Your task to perform on an android device: Find coffee shops on Maps Image 0: 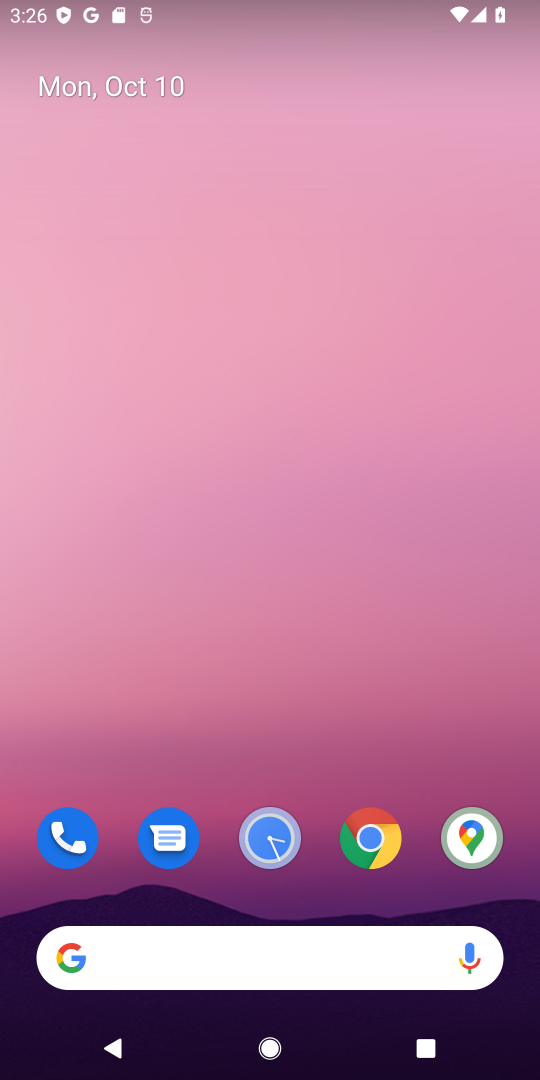
Step 0: drag from (259, 895) to (313, 175)
Your task to perform on an android device: Find coffee shops on Maps Image 1: 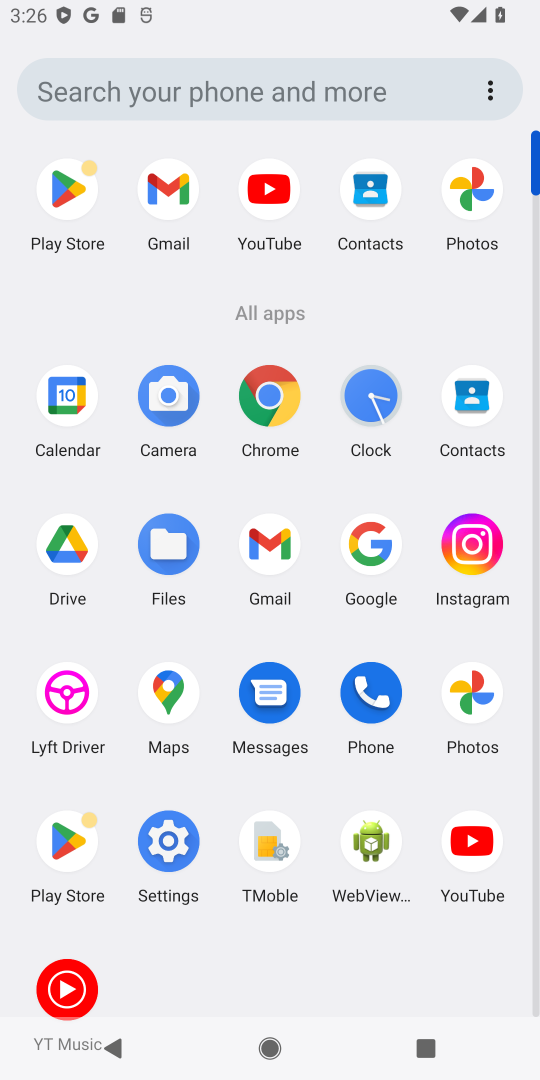
Step 1: click (175, 700)
Your task to perform on an android device: Find coffee shops on Maps Image 2: 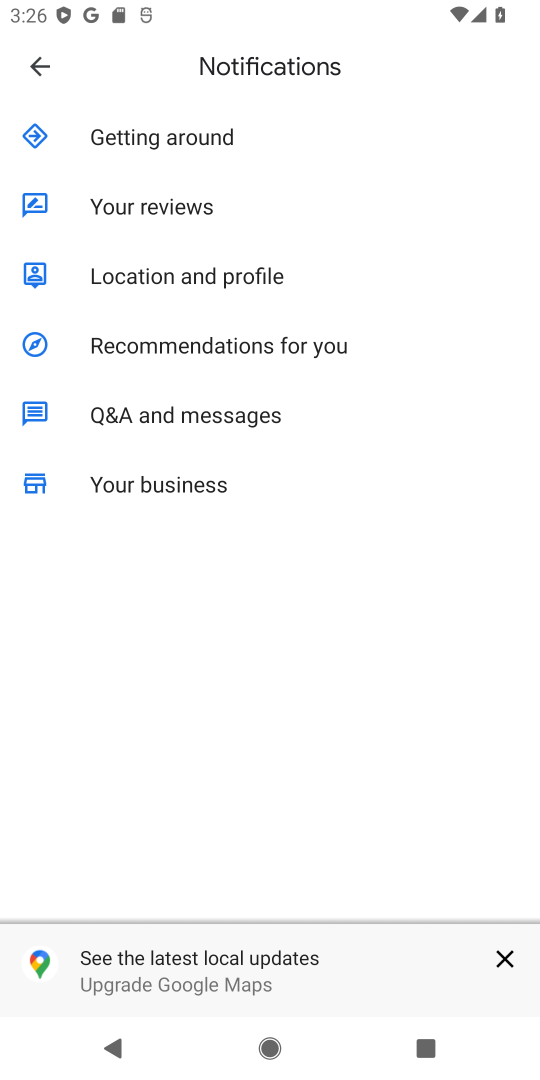
Step 2: click (36, 72)
Your task to perform on an android device: Find coffee shops on Maps Image 3: 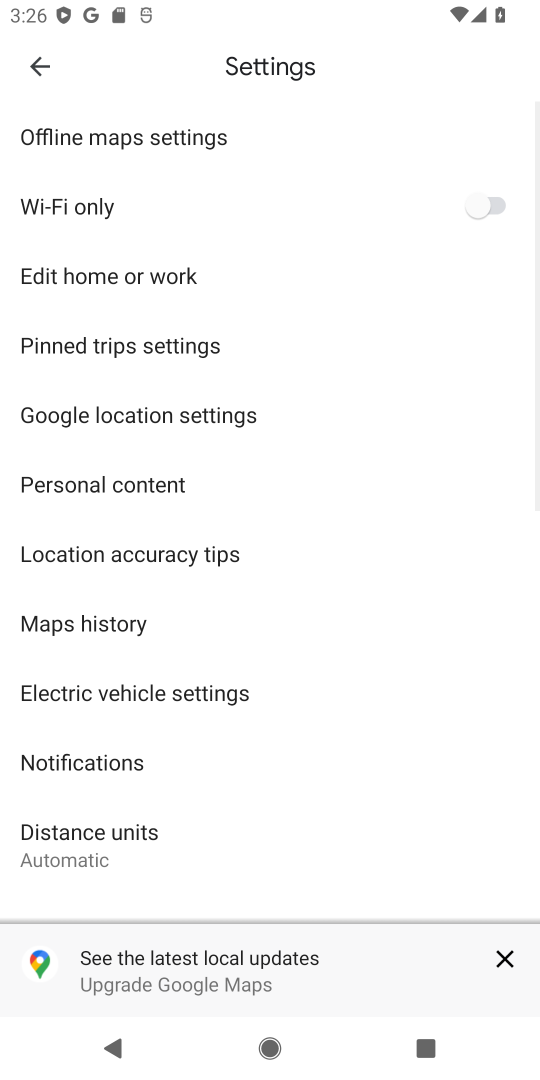
Step 3: click (31, 65)
Your task to perform on an android device: Find coffee shops on Maps Image 4: 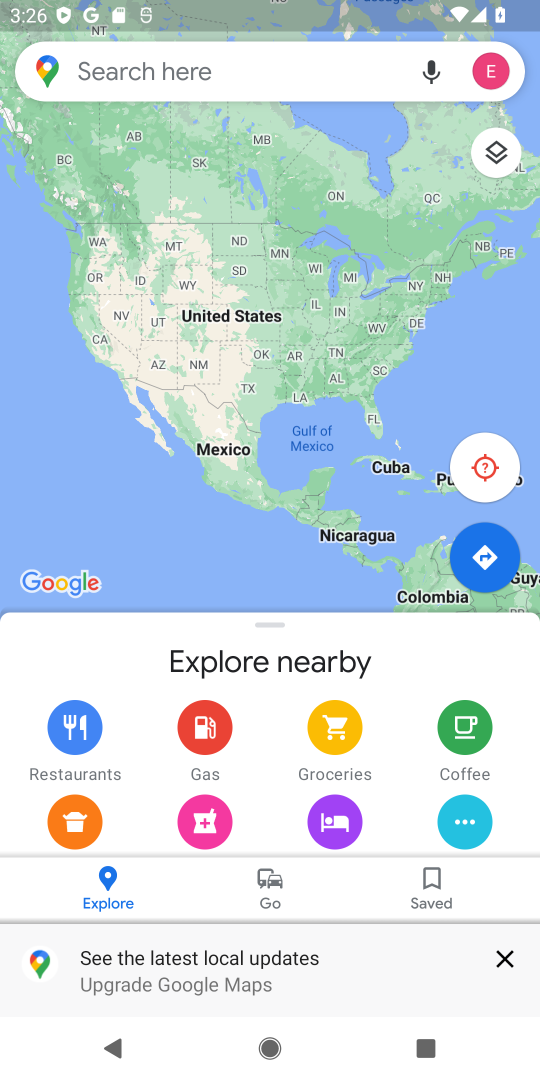
Step 4: click (242, 88)
Your task to perform on an android device: Find coffee shops on Maps Image 5: 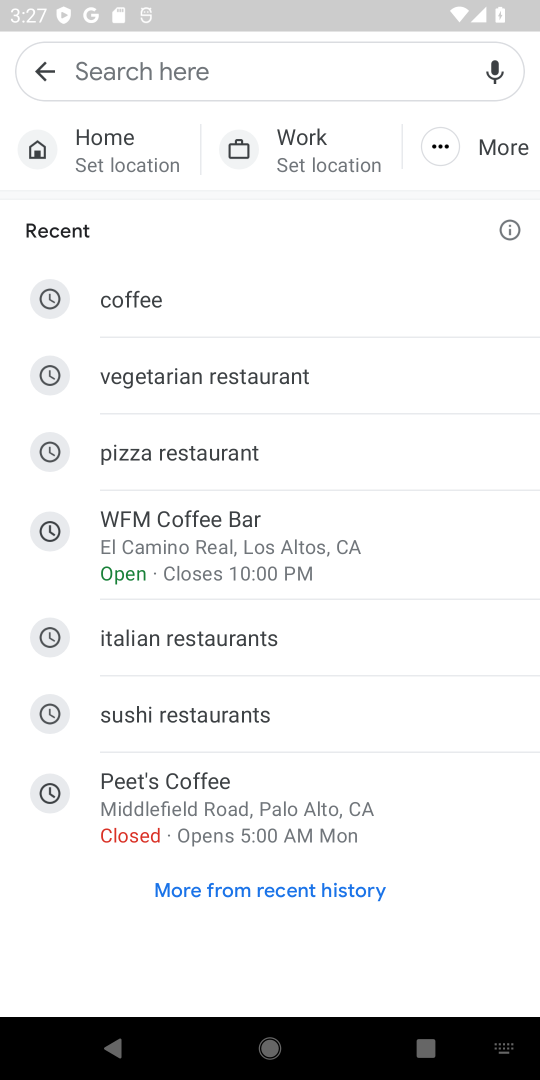
Step 5: type "coffee shops"
Your task to perform on an android device: Find coffee shops on Maps Image 6: 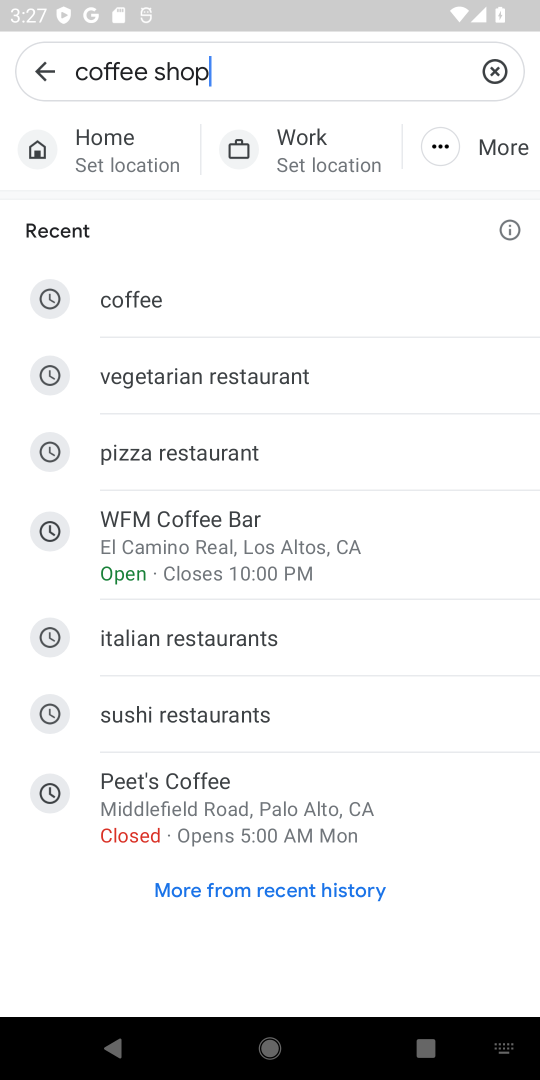
Step 6: type ""
Your task to perform on an android device: Find coffee shops on Maps Image 7: 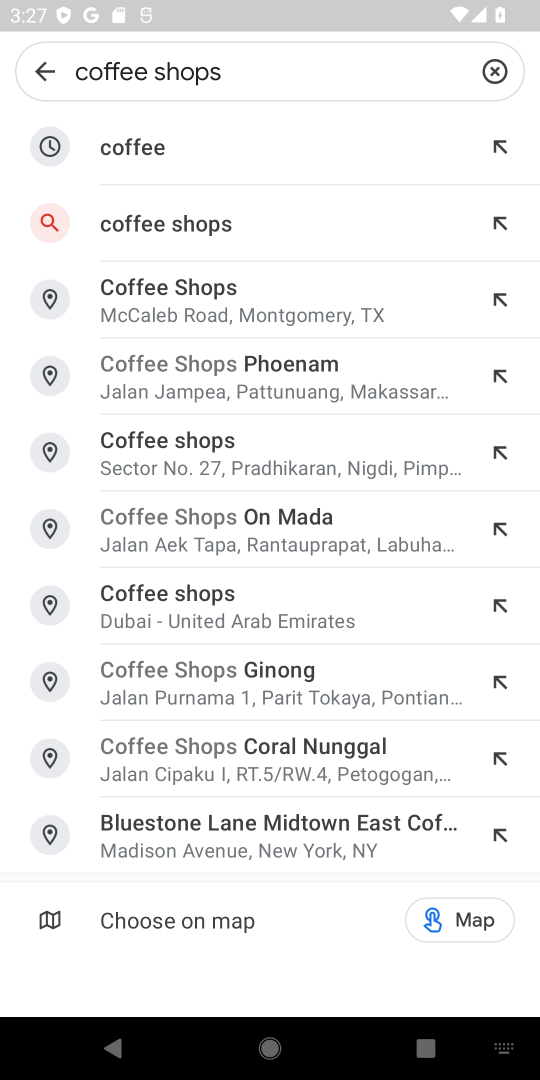
Step 7: click (281, 205)
Your task to perform on an android device: Find coffee shops on Maps Image 8: 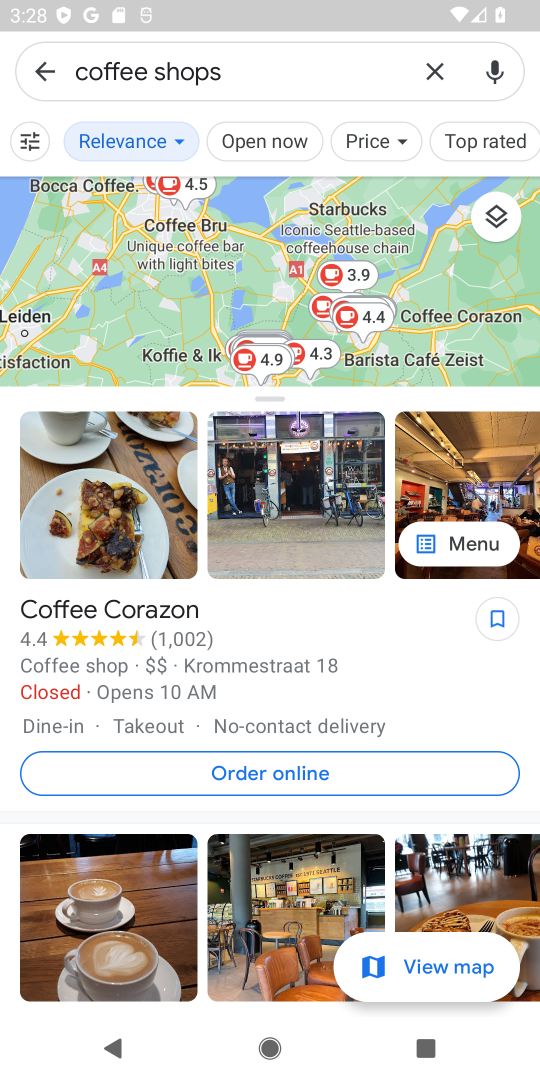
Step 8: task complete